Your task to perform on an android device: Toggle the flashlight Image 0: 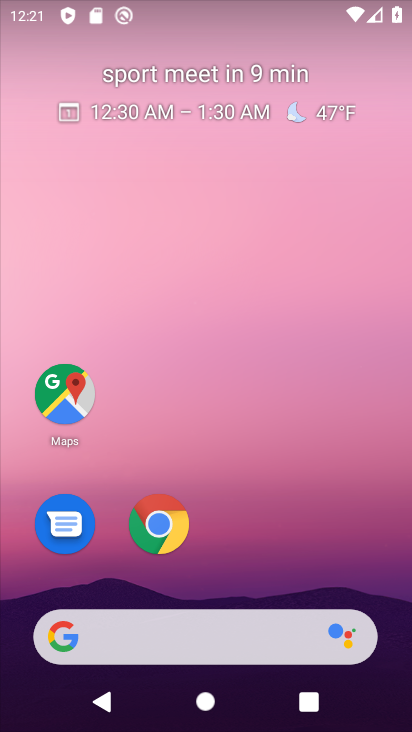
Step 0: drag from (334, 549) to (411, 43)
Your task to perform on an android device: Toggle the flashlight Image 1: 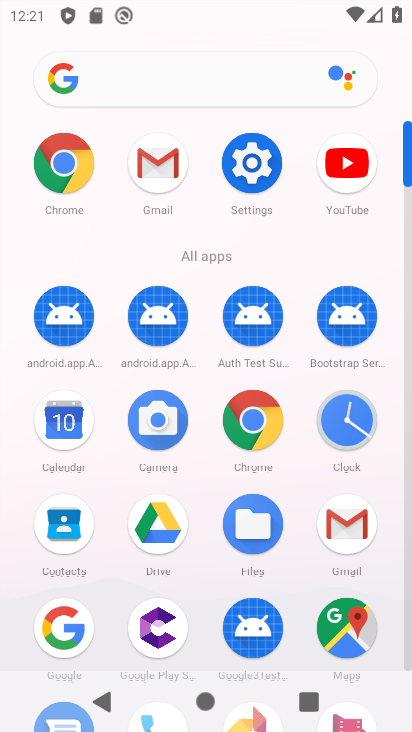
Step 1: click (267, 141)
Your task to perform on an android device: Toggle the flashlight Image 2: 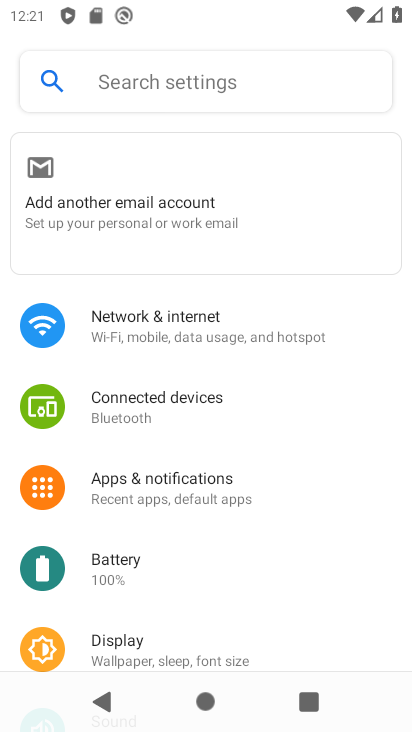
Step 2: click (260, 62)
Your task to perform on an android device: Toggle the flashlight Image 3: 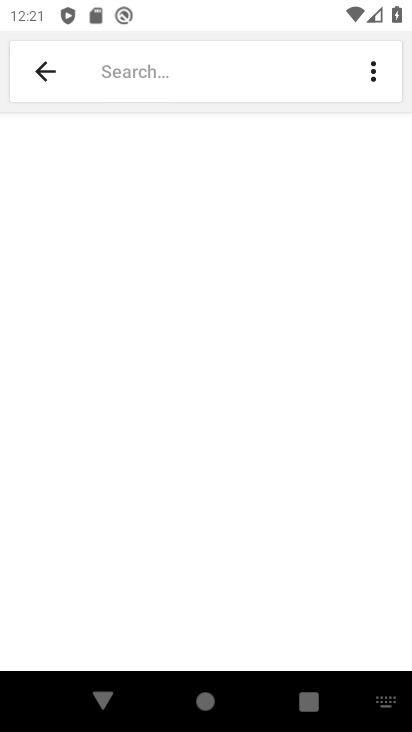
Step 3: click (260, 74)
Your task to perform on an android device: Toggle the flashlight Image 4: 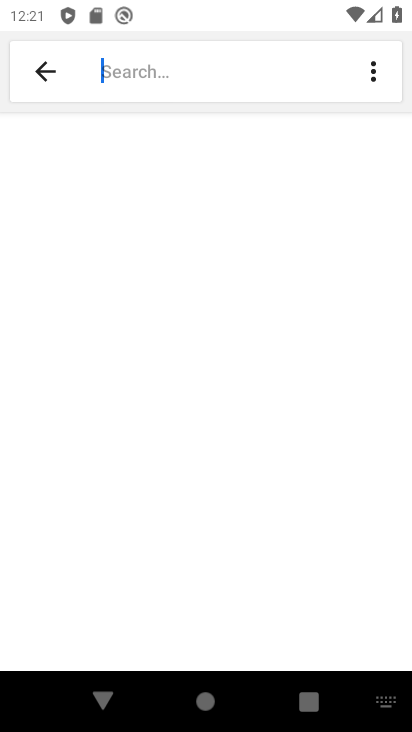
Step 4: type "Flashlight"
Your task to perform on an android device: Toggle the flashlight Image 5: 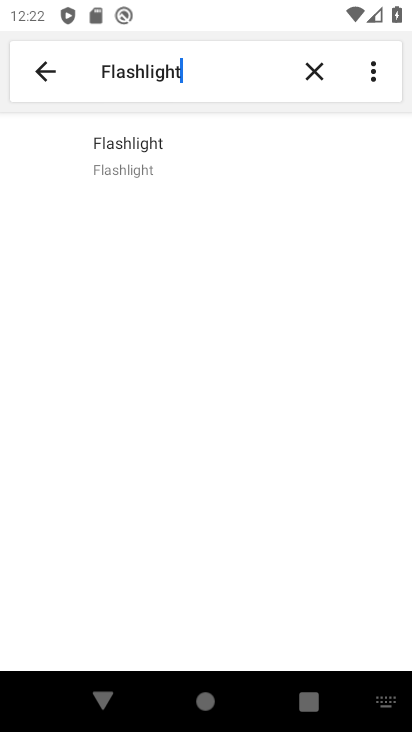
Step 5: click (139, 166)
Your task to perform on an android device: Toggle the flashlight Image 6: 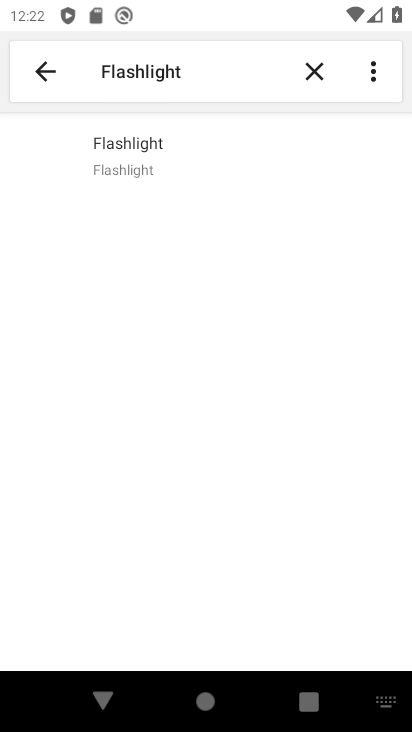
Step 6: task complete